Your task to perform on an android device: Go to Wikipedia Image 0: 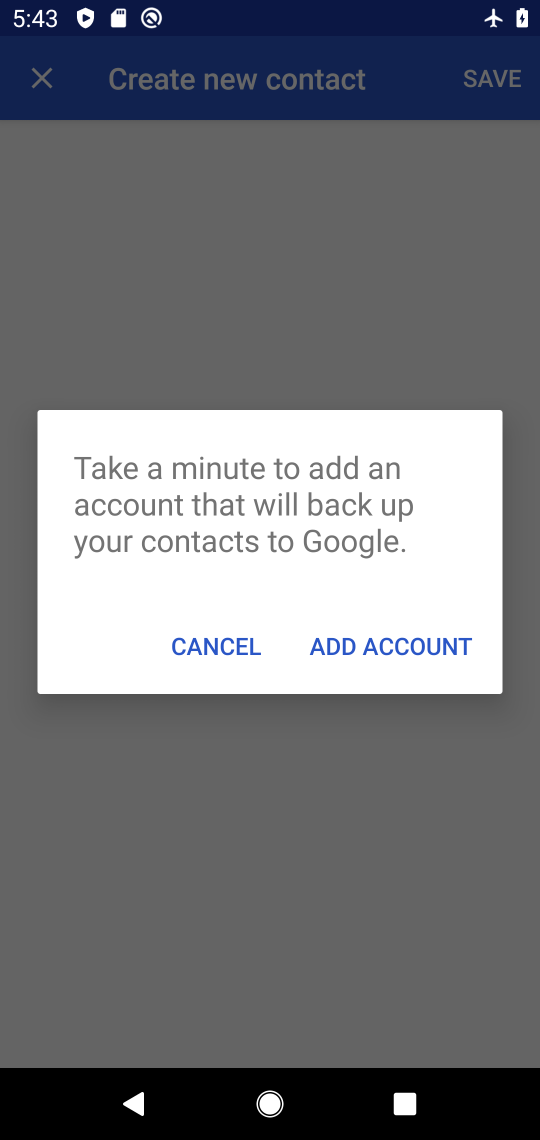
Step 0: press home button
Your task to perform on an android device: Go to Wikipedia Image 1: 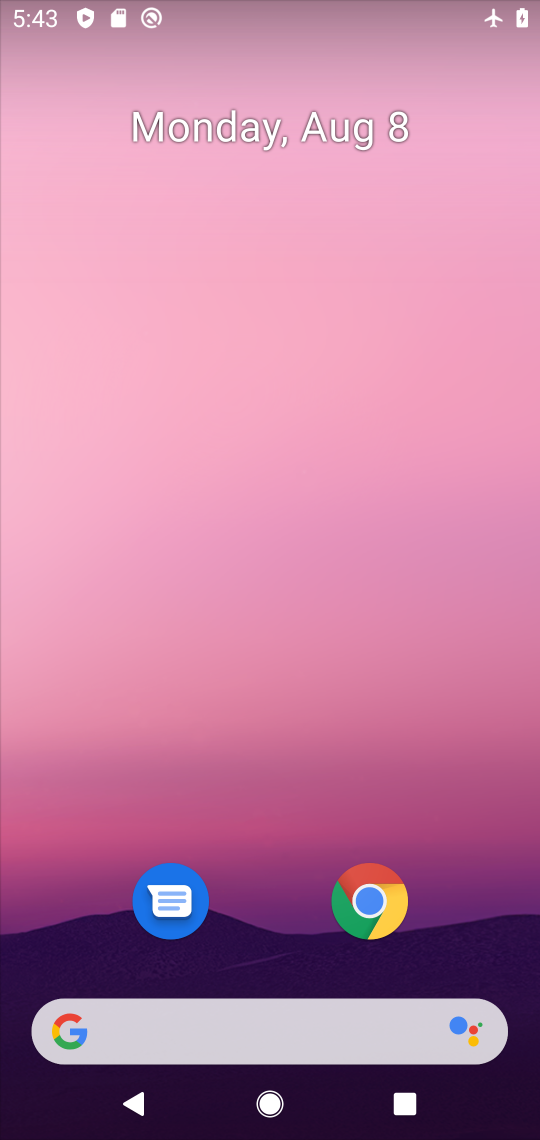
Step 1: click (376, 902)
Your task to perform on an android device: Go to Wikipedia Image 2: 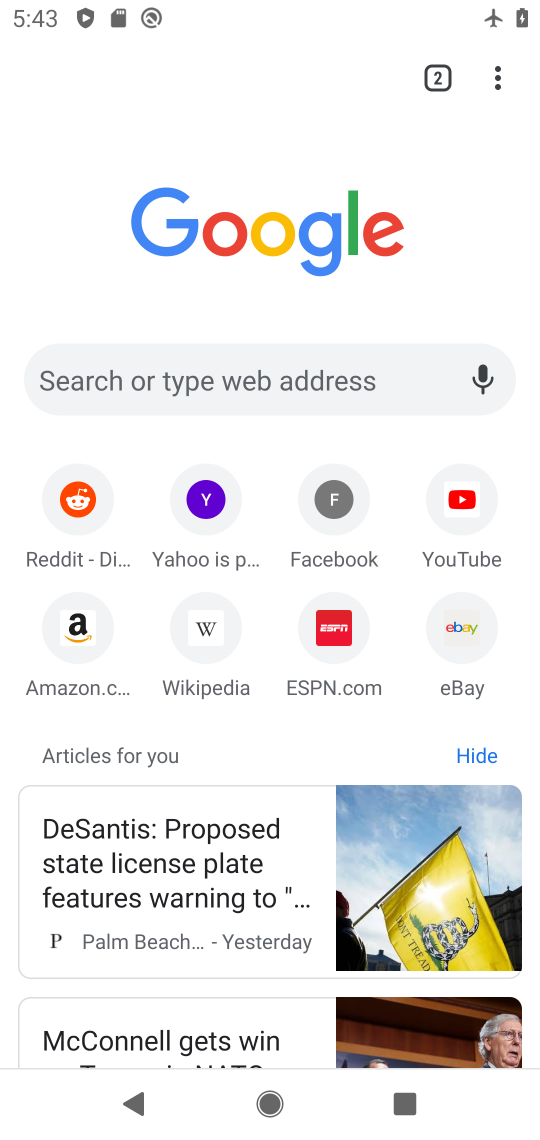
Step 2: click (234, 660)
Your task to perform on an android device: Go to Wikipedia Image 3: 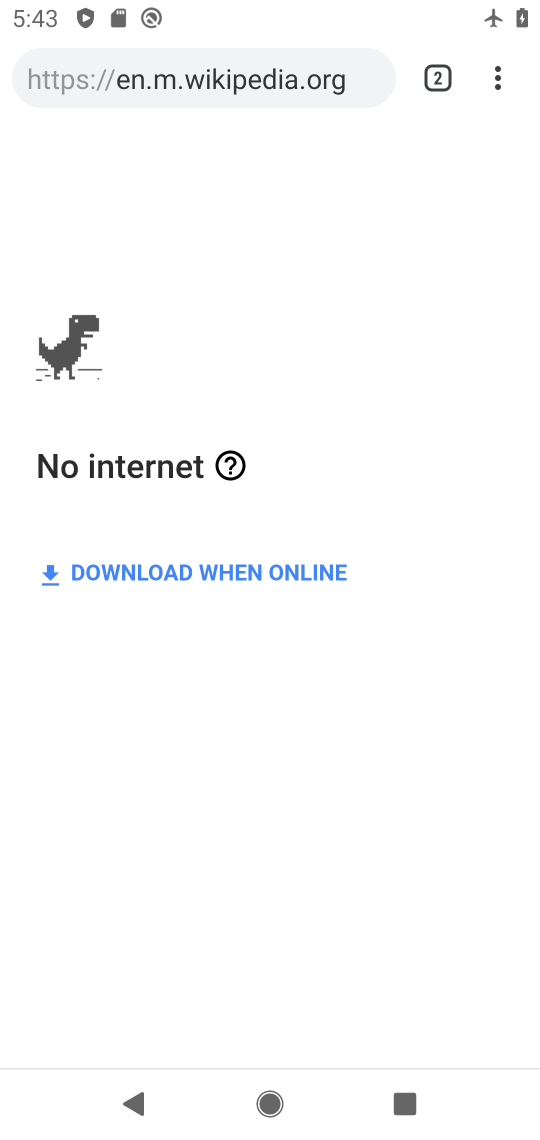
Step 3: task complete